Your task to perform on an android device: allow notifications from all sites in the chrome app Image 0: 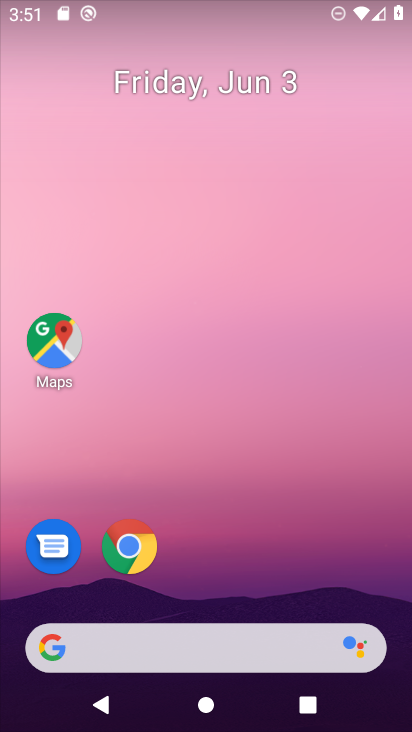
Step 0: click (143, 548)
Your task to perform on an android device: allow notifications from all sites in the chrome app Image 1: 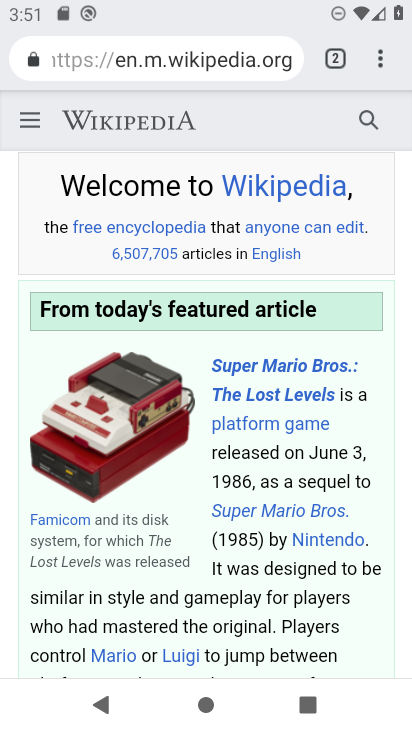
Step 1: click (371, 52)
Your task to perform on an android device: allow notifications from all sites in the chrome app Image 2: 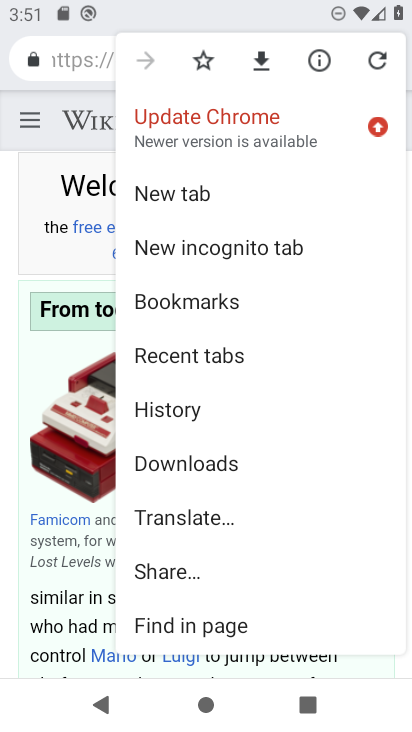
Step 2: drag from (312, 399) to (377, 213)
Your task to perform on an android device: allow notifications from all sites in the chrome app Image 3: 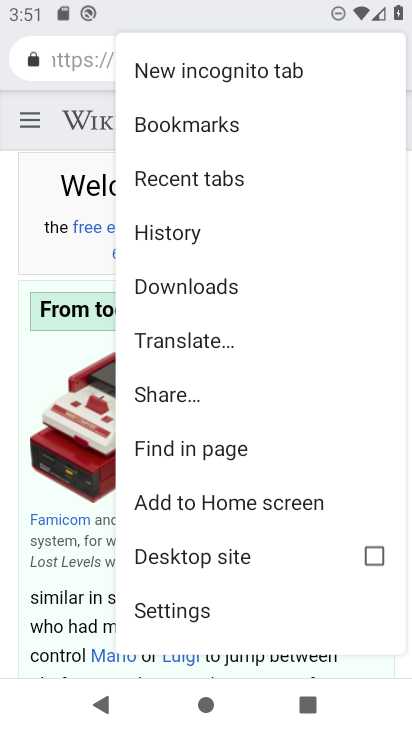
Step 3: click (230, 605)
Your task to perform on an android device: allow notifications from all sites in the chrome app Image 4: 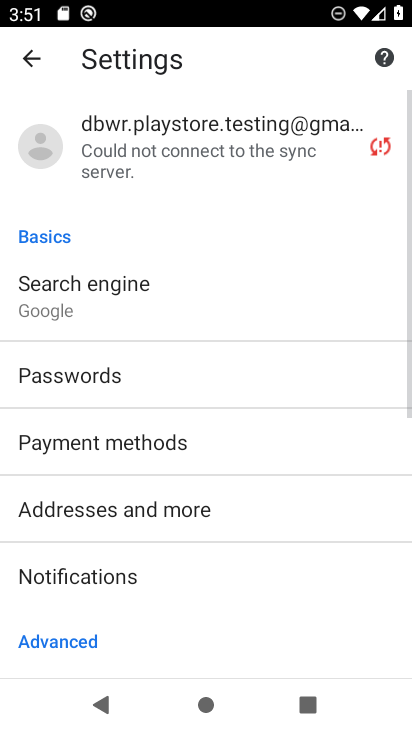
Step 4: click (207, 566)
Your task to perform on an android device: allow notifications from all sites in the chrome app Image 5: 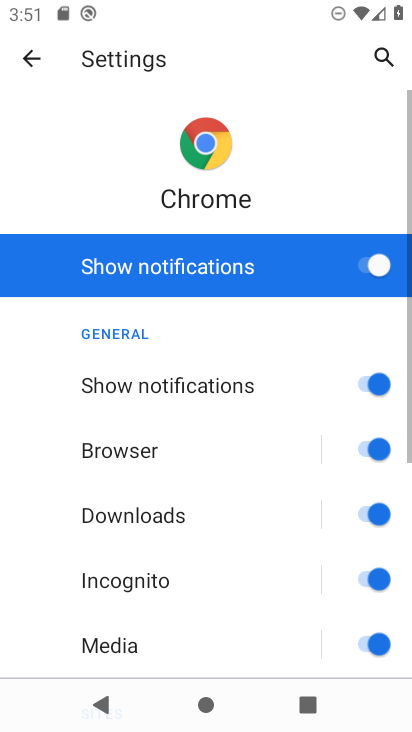
Step 5: task complete